Your task to perform on an android device: Turn on the flashlight Image 0: 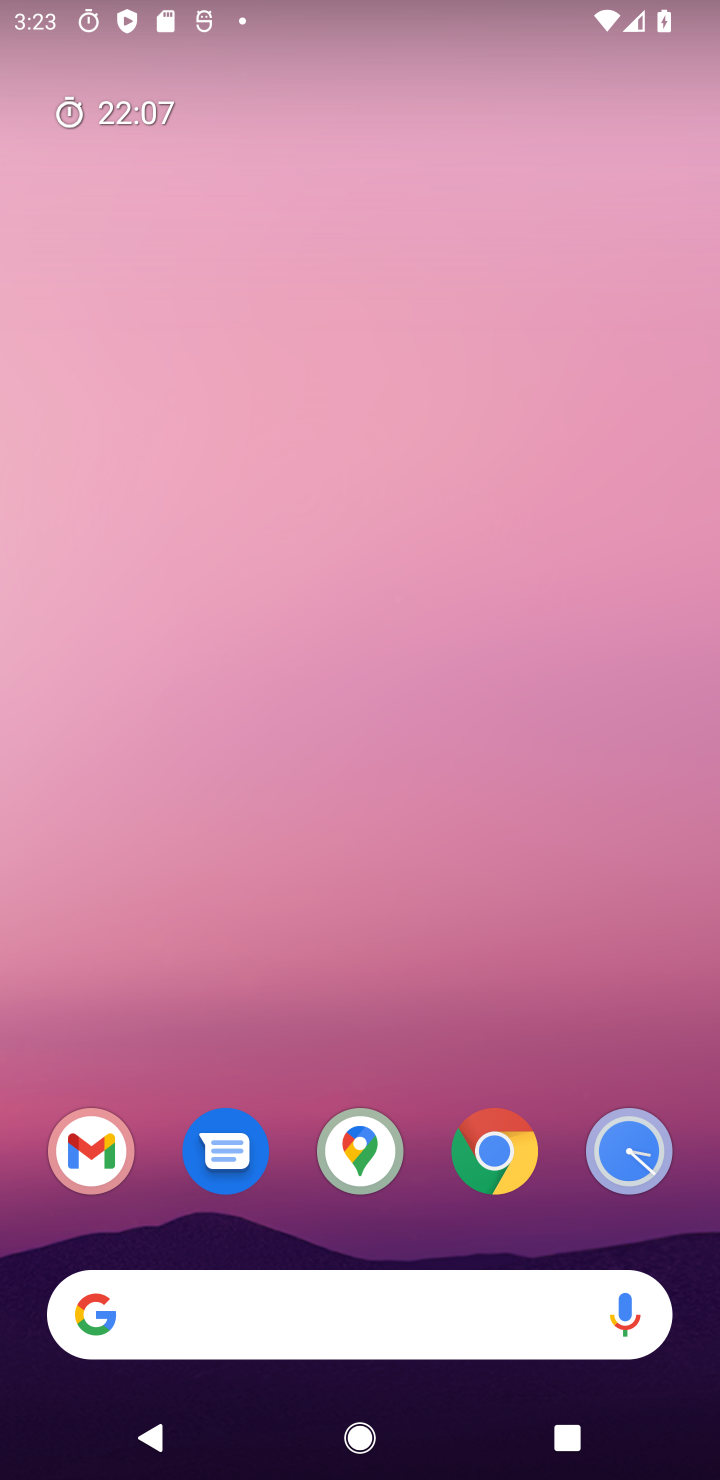
Step 0: drag from (442, 366) to (465, 15)
Your task to perform on an android device: Turn on the flashlight Image 1: 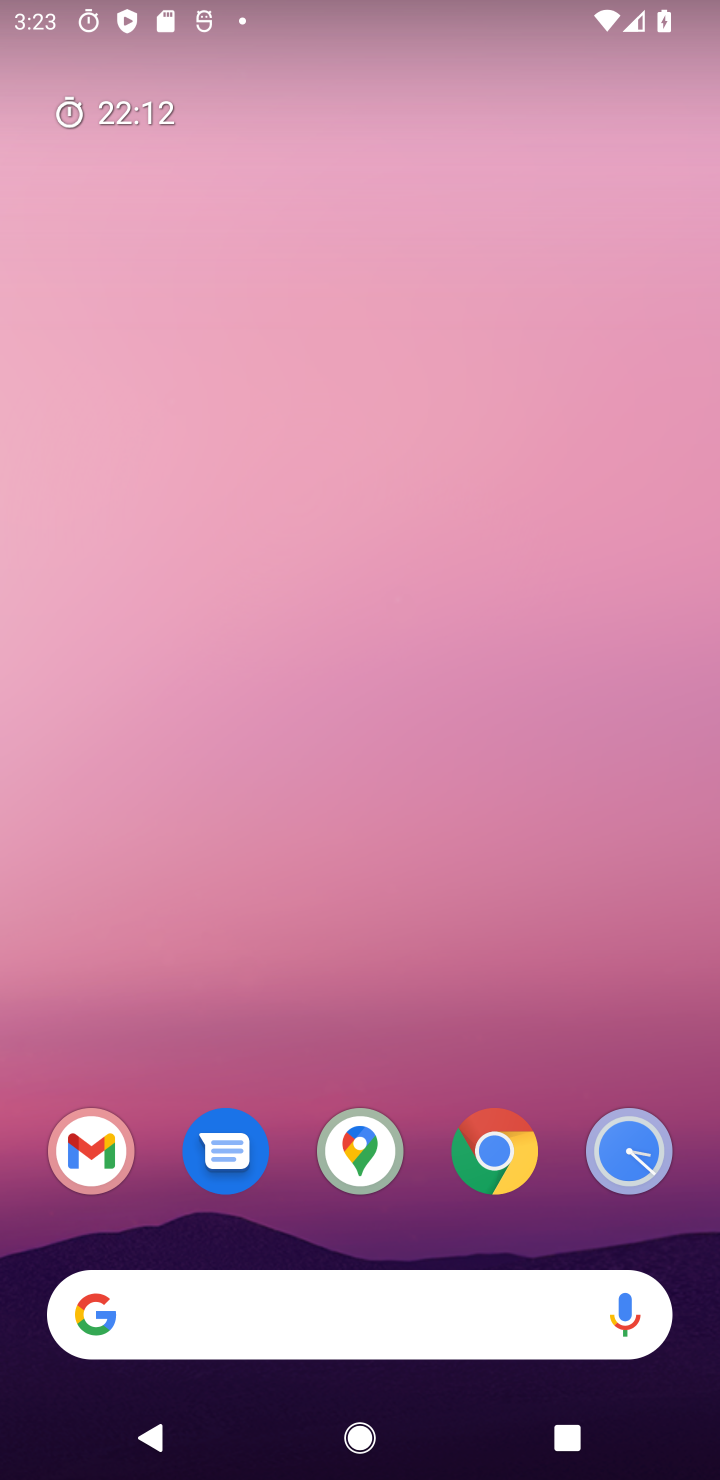
Step 1: task complete